Your task to perform on an android device: turn smart compose on in the gmail app Image 0: 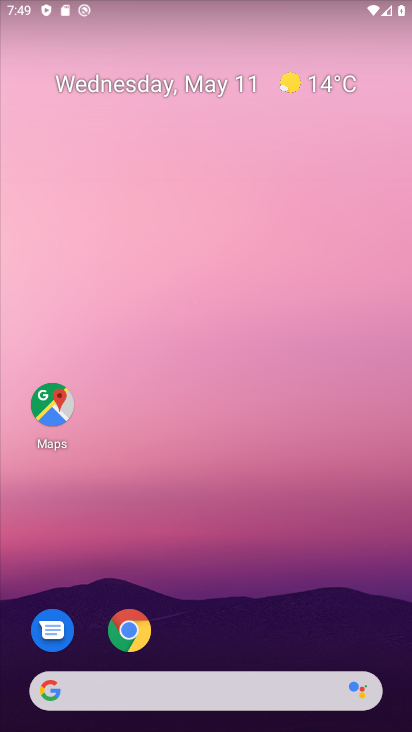
Step 0: drag from (221, 661) to (164, 13)
Your task to perform on an android device: turn smart compose on in the gmail app Image 1: 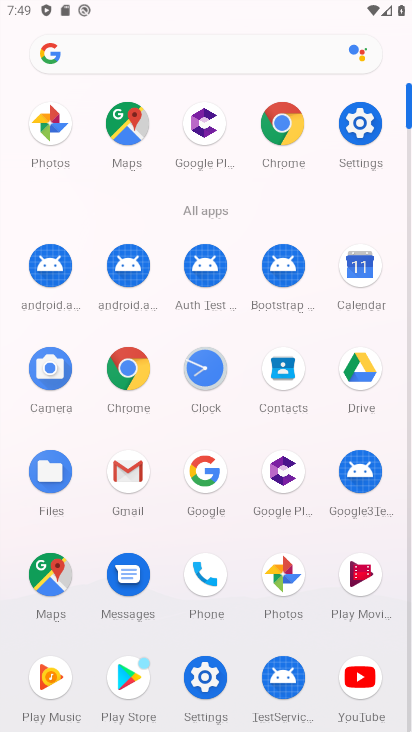
Step 1: click (130, 460)
Your task to perform on an android device: turn smart compose on in the gmail app Image 2: 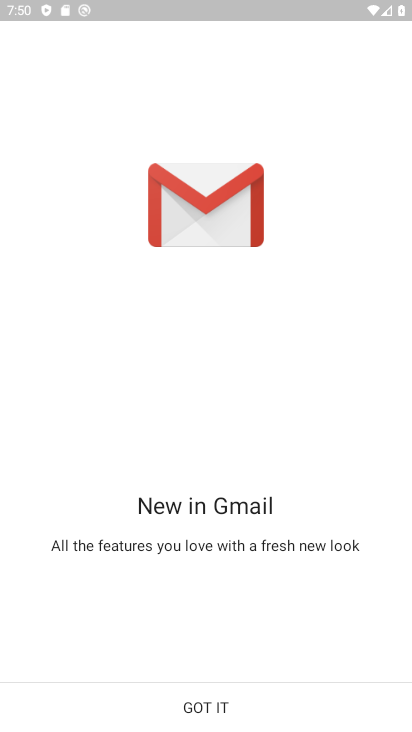
Step 2: drag from (372, 434) to (131, 701)
Your task to perform on an android device: turn smart compose on in the gmail app Image 3: 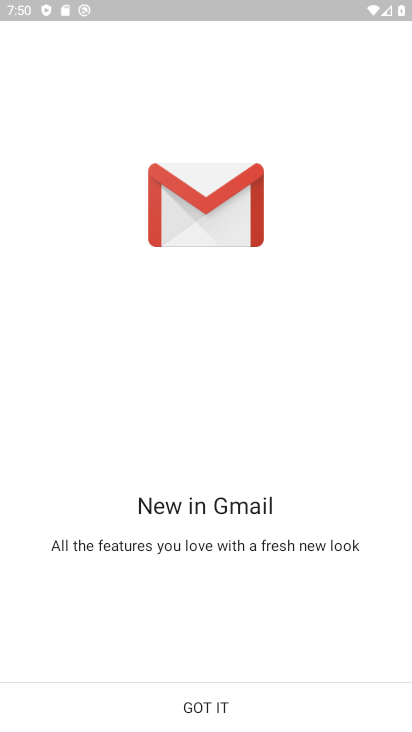
Step 3: click (203, 700)
Your task to perform on an android device: turn smart compose on in the gmail app Image 4: 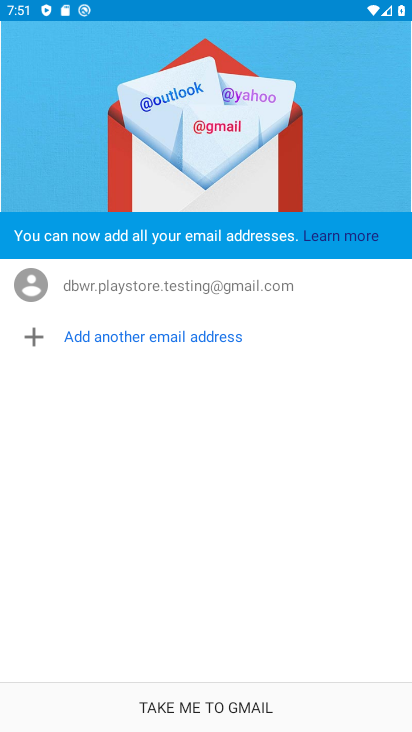
Step 4: click (203, 700)
Your task to perform on an android device: turn smart compose on in the gmail app Image 5: 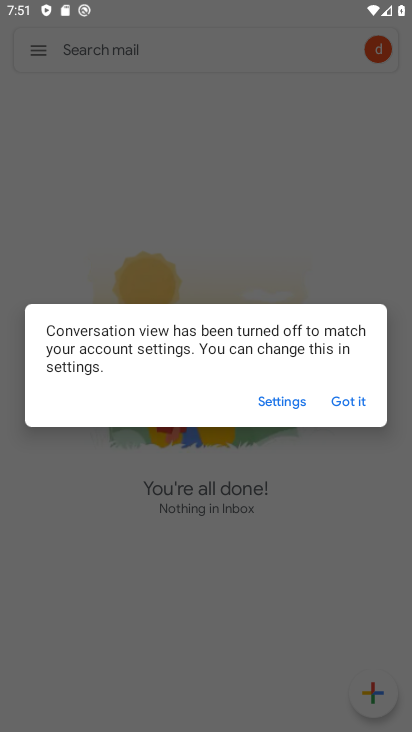
Step 5: click (339, 409)
Your task to perform on an android device: turn smart compose on in the gmail app Image 6: 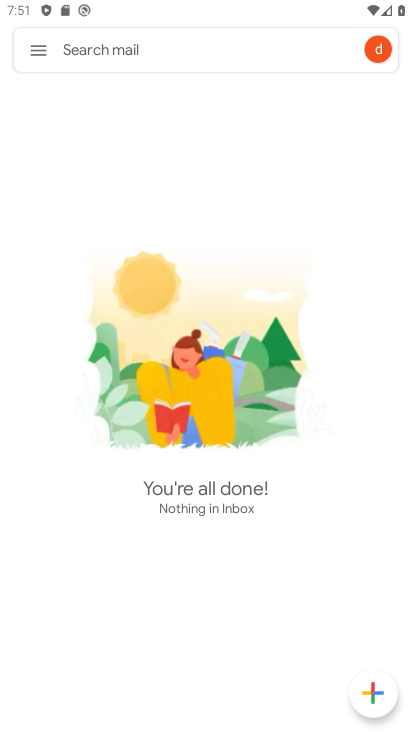
Step 6: click (27, 40)
Your task to perform on an android device: turn smart compose on in the gmail app Image 7: 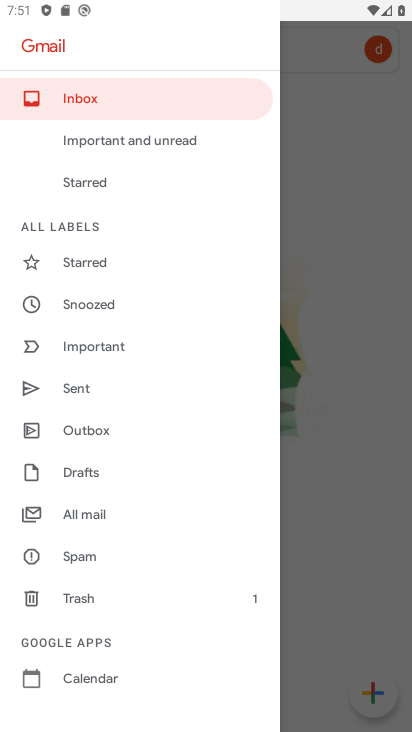
Step 7: drag from (169, 503) to (179, 134)
Your task to perform on an android device: turn smart compose on in the gmail app Image 8: 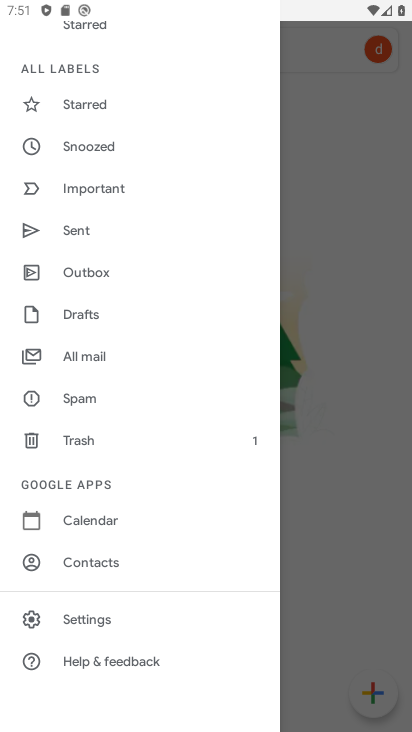
Step 8: click (86, 617)
Your task to perform on an android device: turn smart compose on in the gmail app Image 9: 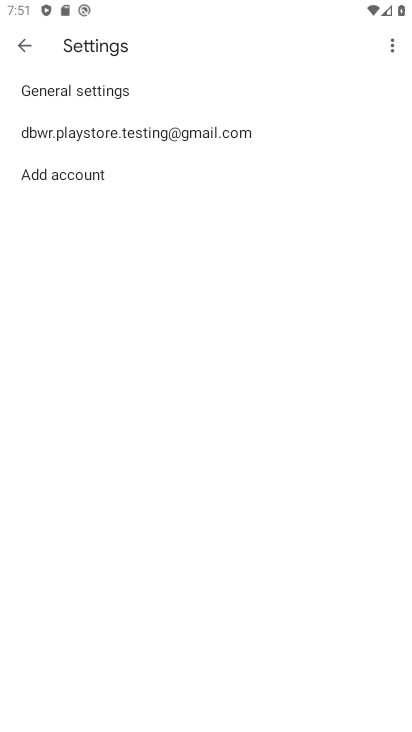
Step 9: click (319, 125)
Your task to perform on an android device: turn smart compose on in the gmail app Image 10: 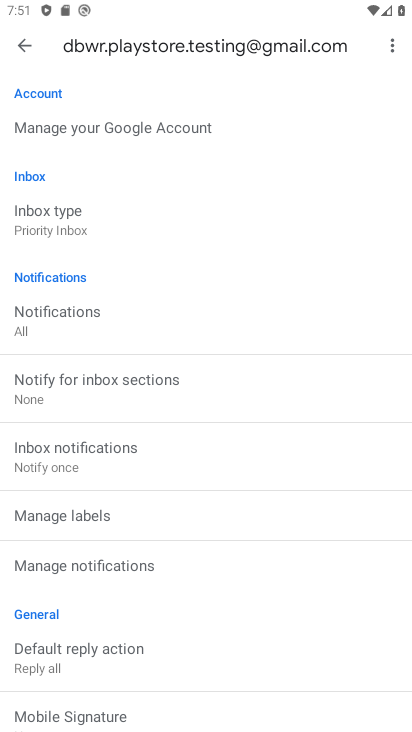
Step 10: task complete